Your task to perform on an android device: search for starred emails in the gmail app Image 0: 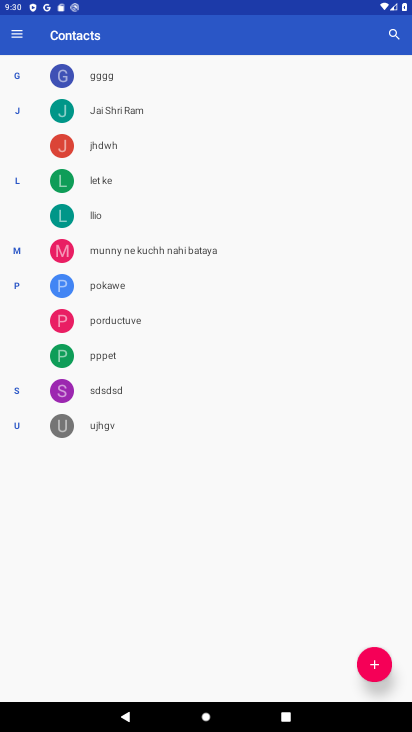
Step 0: press home button
Your task to perform on an android device: search for starred emails in the gmail app Image 1: 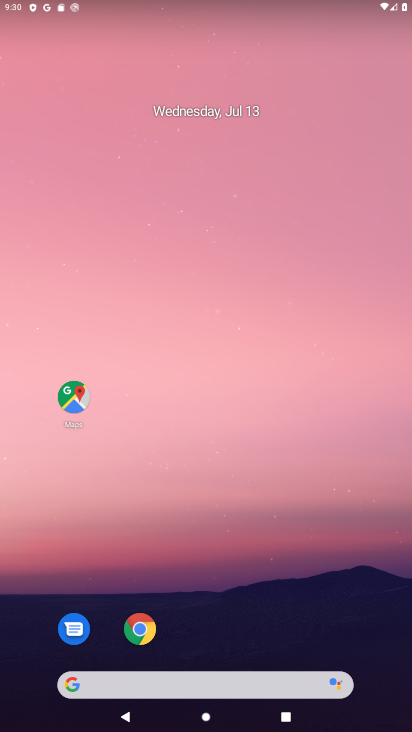
Step 1: drag from (265, 623) to (220, 9)
Your task to perform on an android device: search for starred emails in the gmail app Image 2: 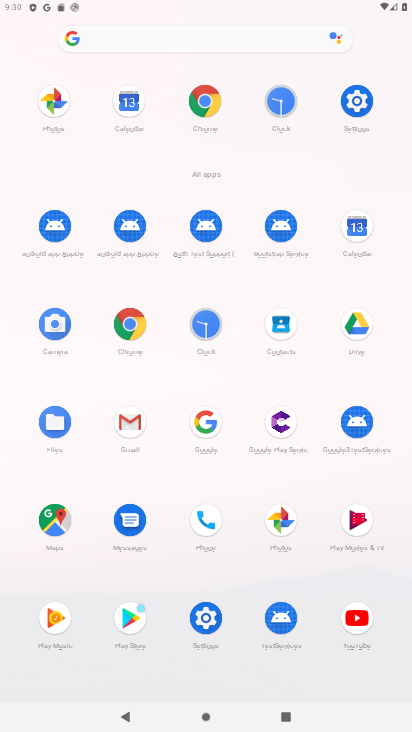
Step 2: click (130, 435)
Your task to perform on an android device: search for starred emails in the gmail app Image 3: 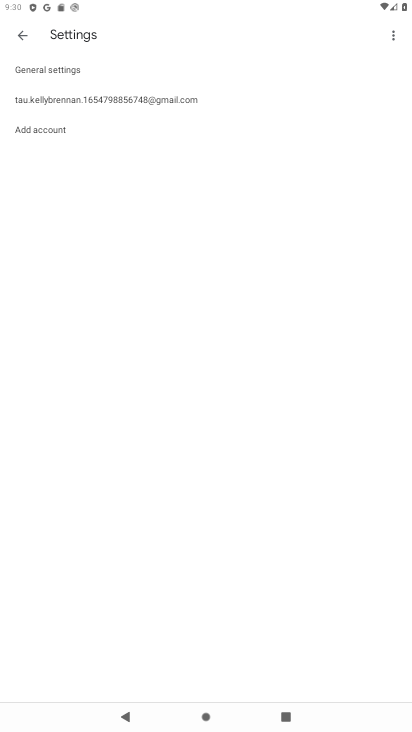
Step 3: click (32, 45)
Your task to perform on an android device: search for starred emails in the gmail app Image 4: 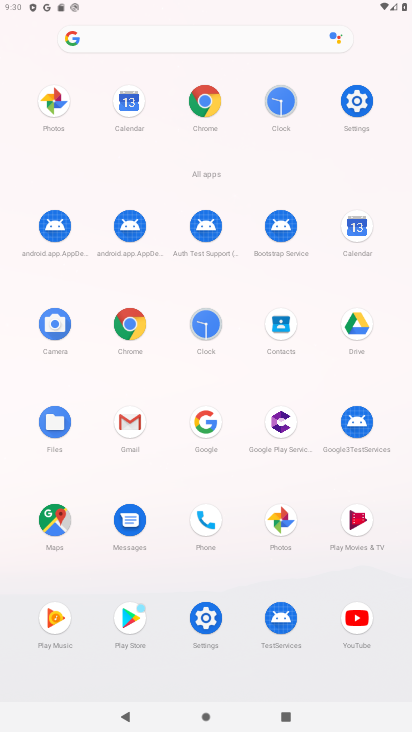
Step 4: click (131, 415)
Your task to perform on an android device: search for starred emails in the gmail app Image 5: 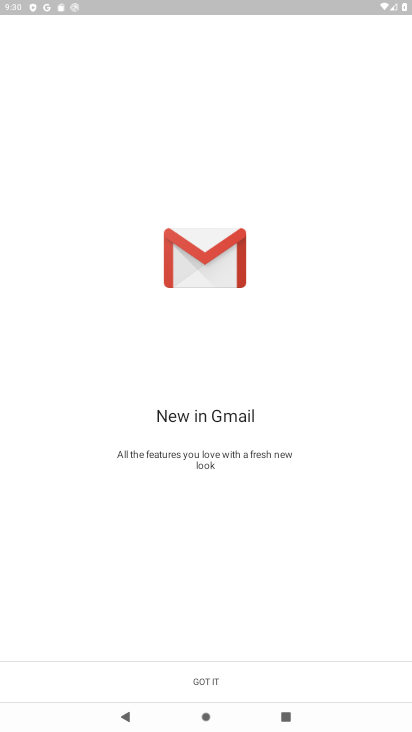
Step 5: click (194, 690)
Your task to perform on an android device: search for starred emails in the gmail app Image 6: 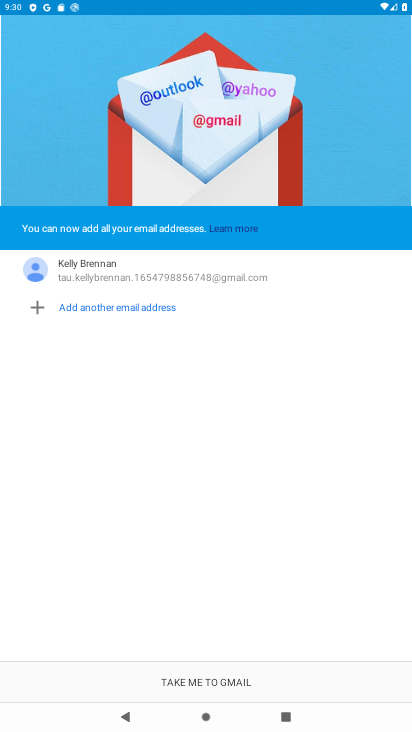
Step 6: click (194, 689)
Your task to perform on an android device: search for starred emails in the gmail app Image 7: 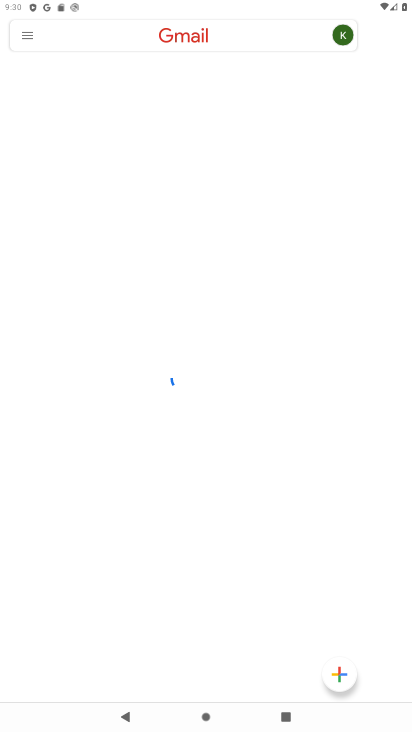
Step 7: click (28, 39)
Your task to perform on an android device: search for starred emails in the gmail app Image 8: 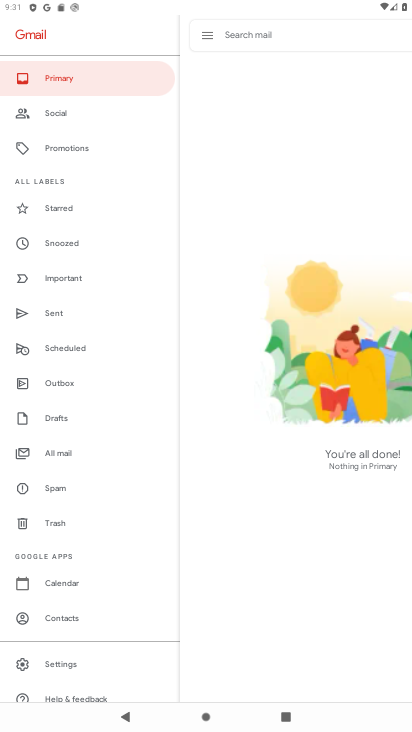
Step 8: click (79, 200)
Your task to perform on an android device: search for starred emails in the gmail app Image 9: 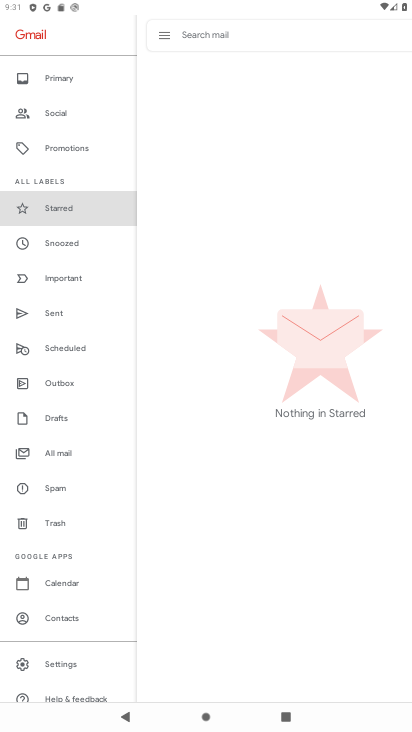
Step 9: task complete